Your task to perform on an android device: Add "beats solo 3" to the cart on costco.com, then select checkout. Image 0: 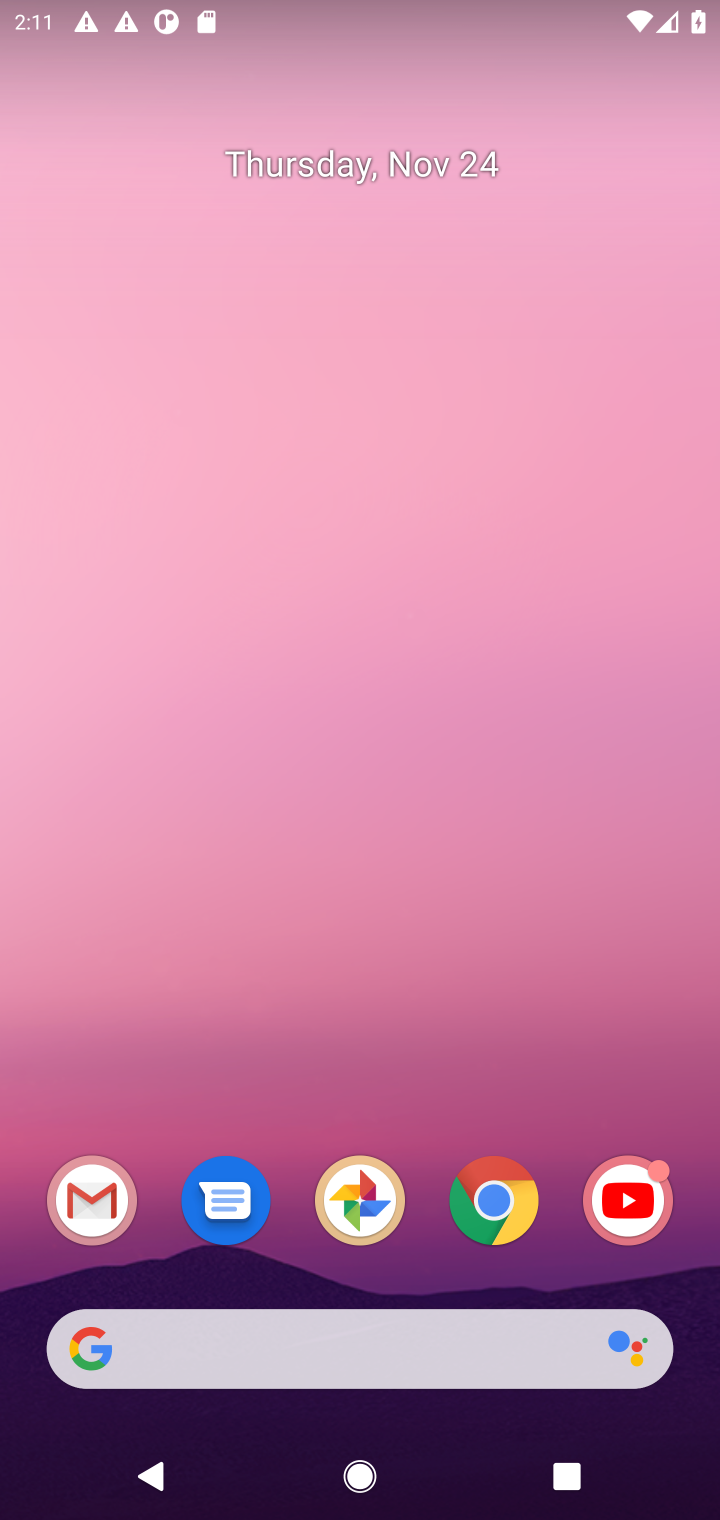
Step 0: click (335, 1327)
Your task to perform on an android device: Add "beats solo 3" to the cart on costco.com, then select checkout. Image 1: 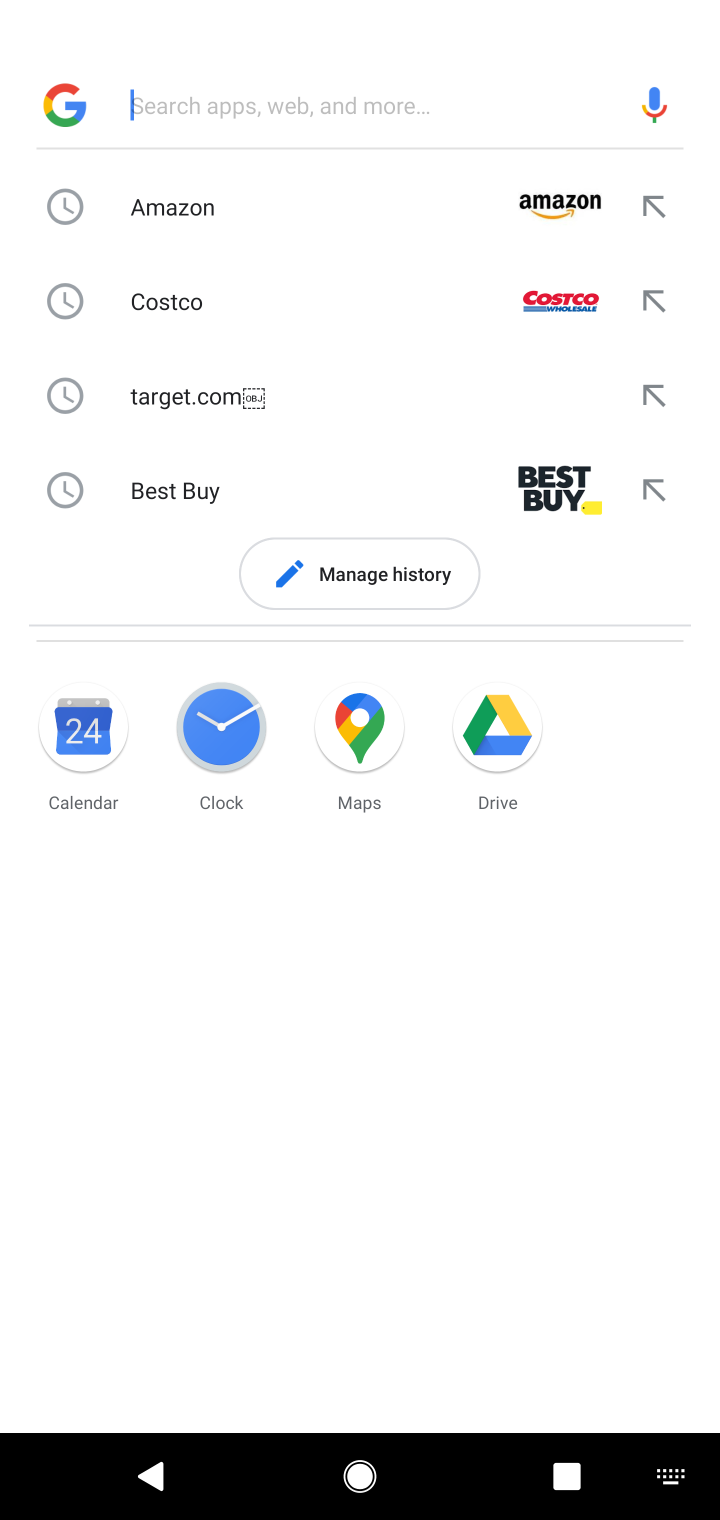
Step 1: task complete